Your task to perform on an android device: Open location settings Image 0: 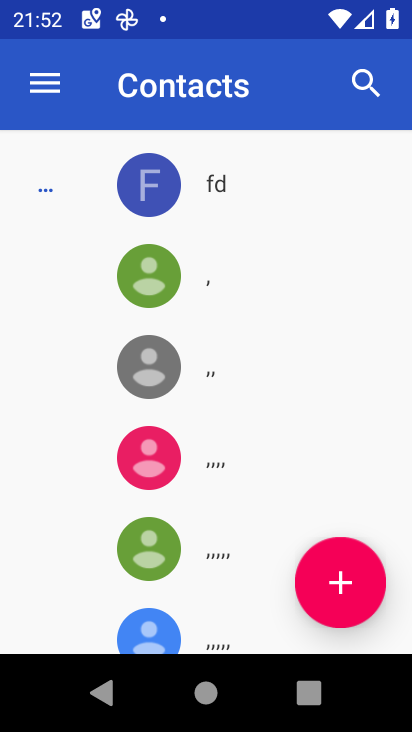
Step 0: press home button
Your task to perform on an android device: Open location settings Image 1: 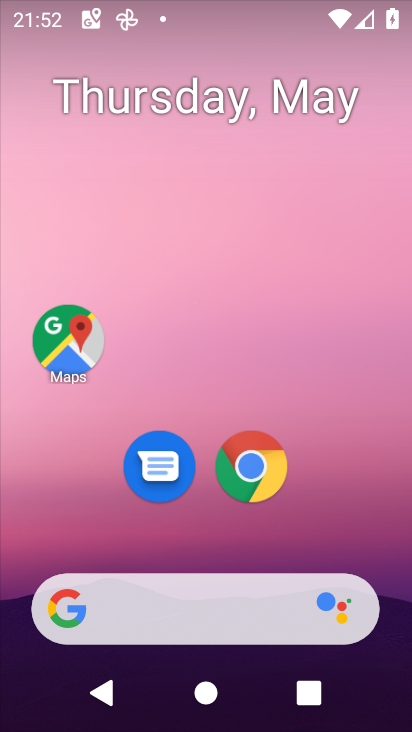
Step 1: drag from (317, 514) to (319, 121)
Your task to perform on an android device: Open location settings Image 2: 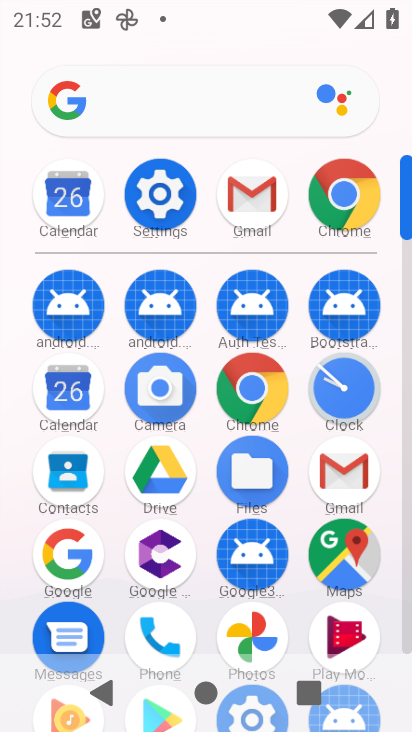
Step 2: click (169, 191)
Your task to perform on an android device: Open location settings Image 3: 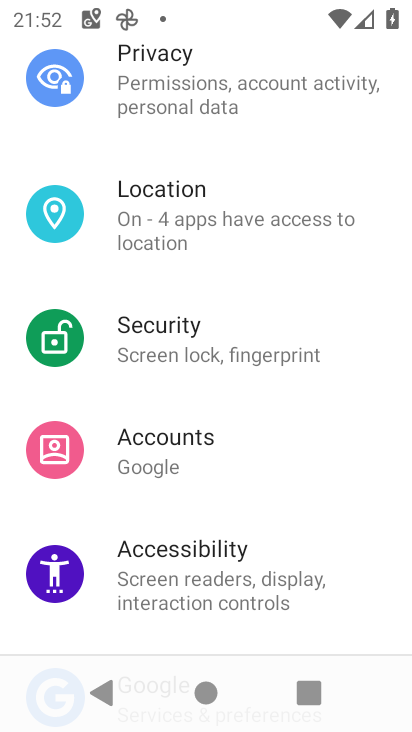
Step 3: click (206, 247)
Your task to perform on an android device: Open location settings Image 4: 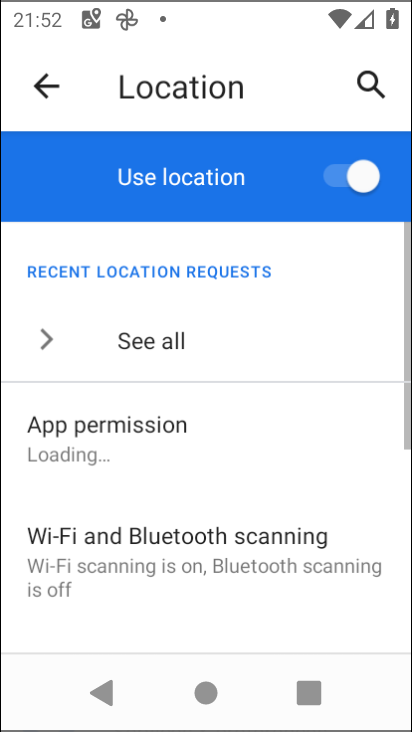
Step 4: task complete